Your task to perform on an android device: Go to network settings Image 0: 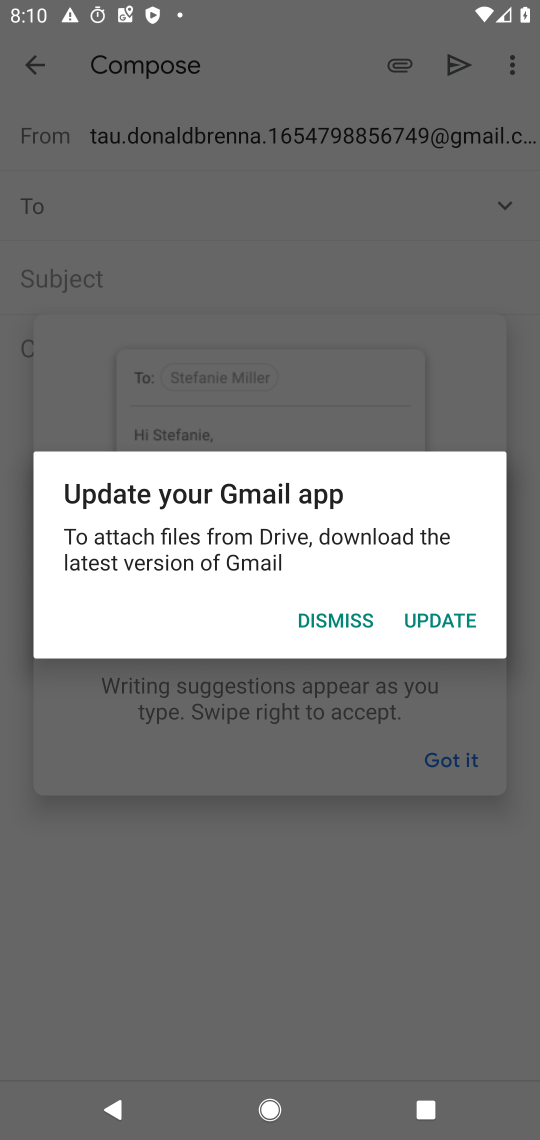
Step 0: press home button
Your task to perform on an android device: Go to network settings Image 1: 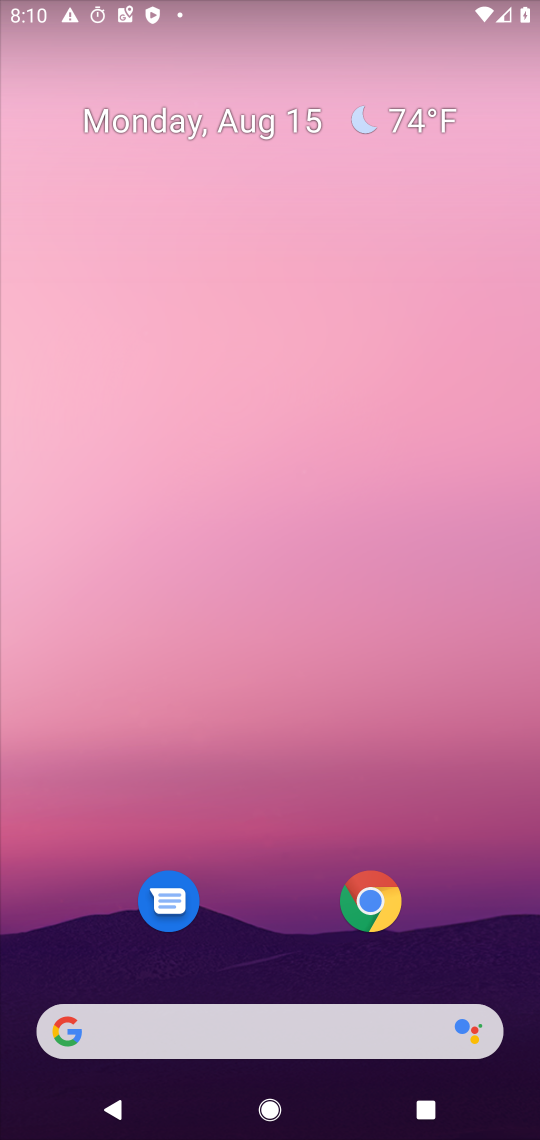
Step 1: drag from (255, 919) to (187, 99)
Your task to perform on an android device: Go to network settings Image 2: 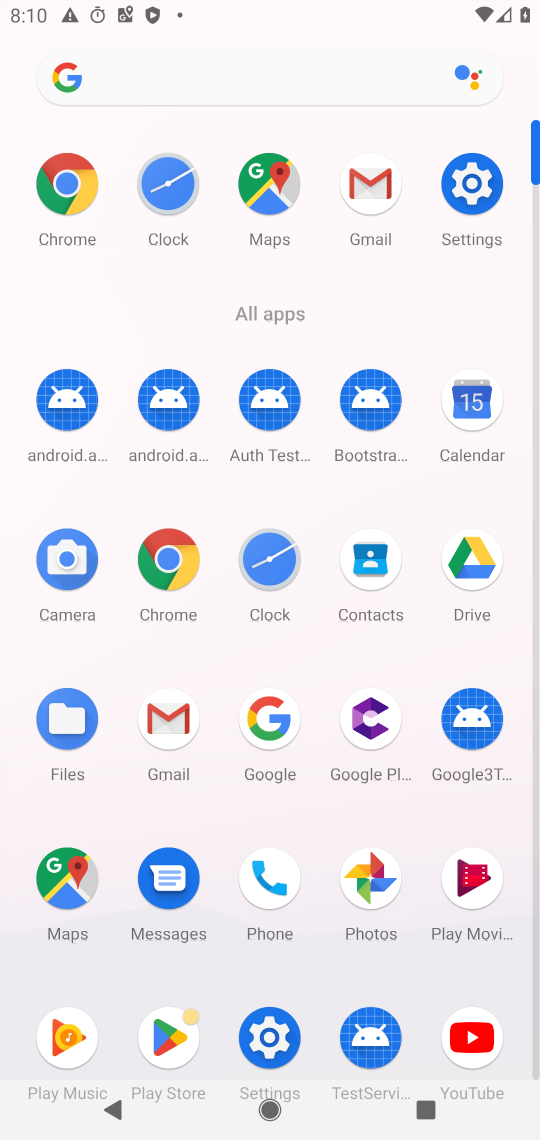
Step 2: click (269, 1027)
Your task to perform on an android device: Go to network settings Image 3: 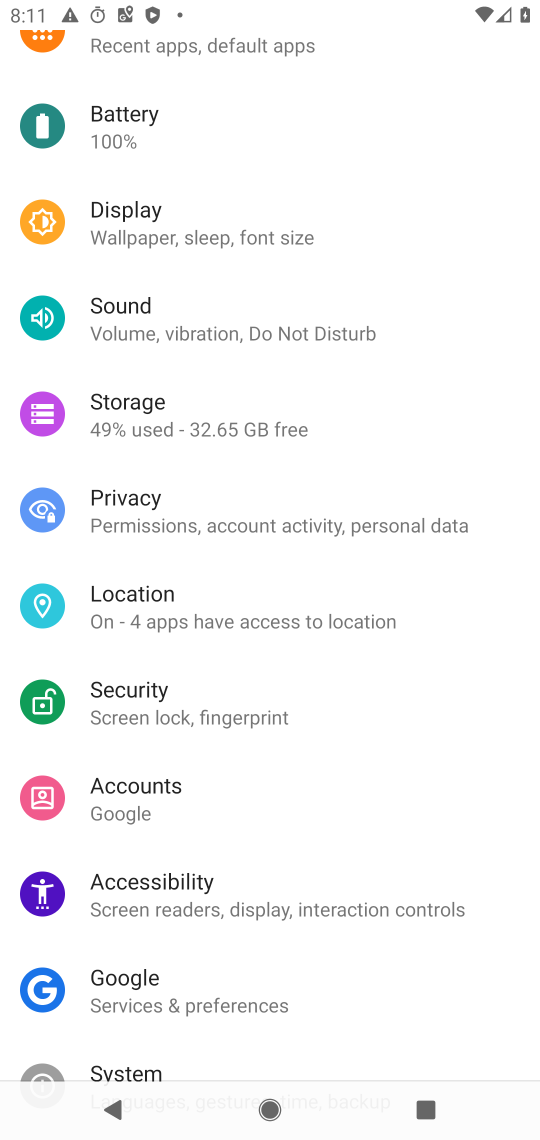
Step 3: drag from (263, 598) to (272, 772)
Your task to perform on an android device: Go to network settings Image 4: 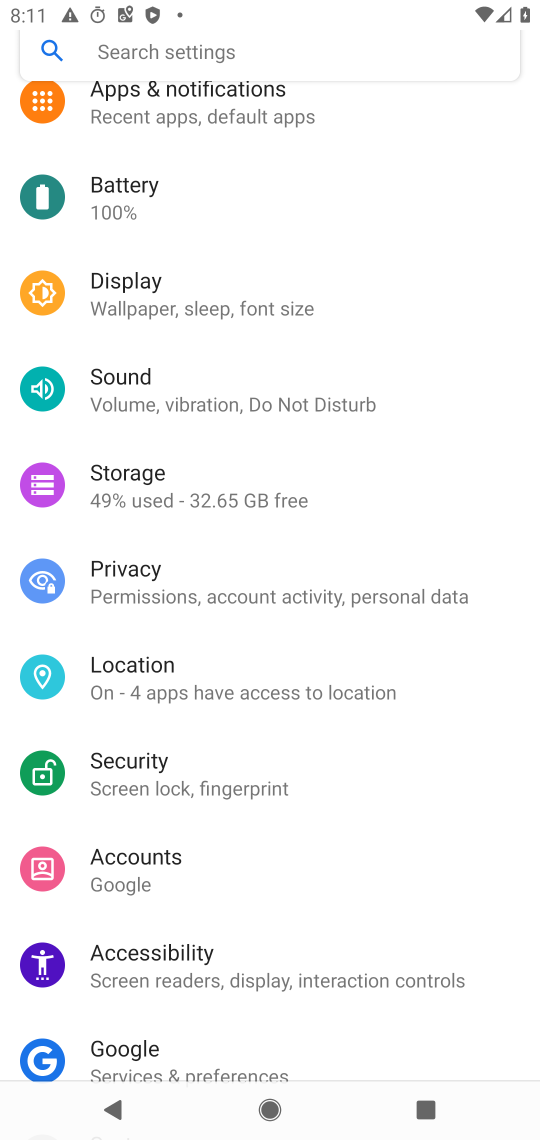
Step 4: drag from (320, 213) to (327, 1011)
Your task to perform on an android device: Go to network settings Image 5: 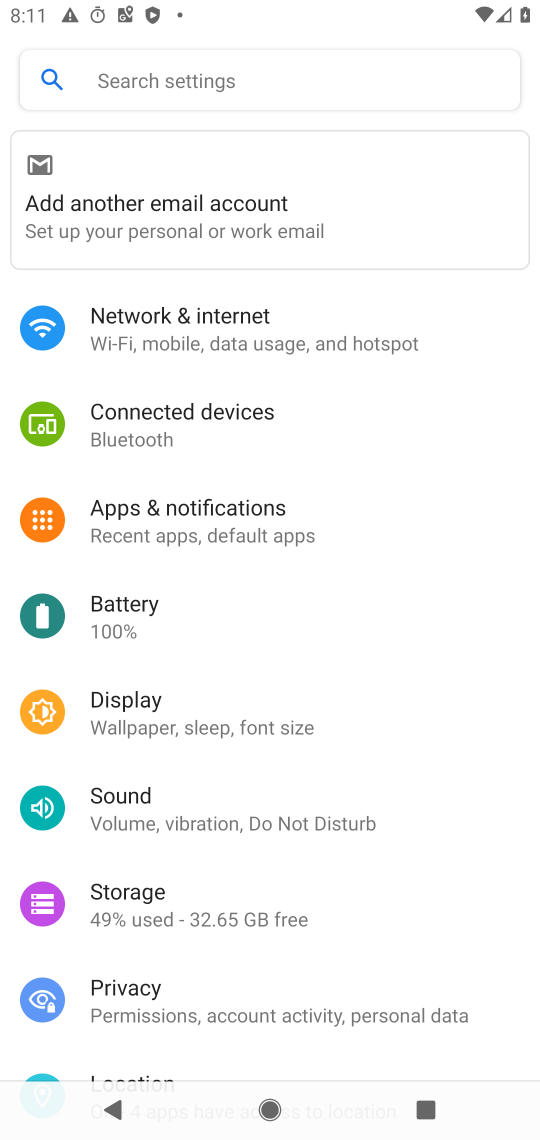
Step 5: click (203, 335)
Your task to perform on an android device: Go to network settings Image 6: 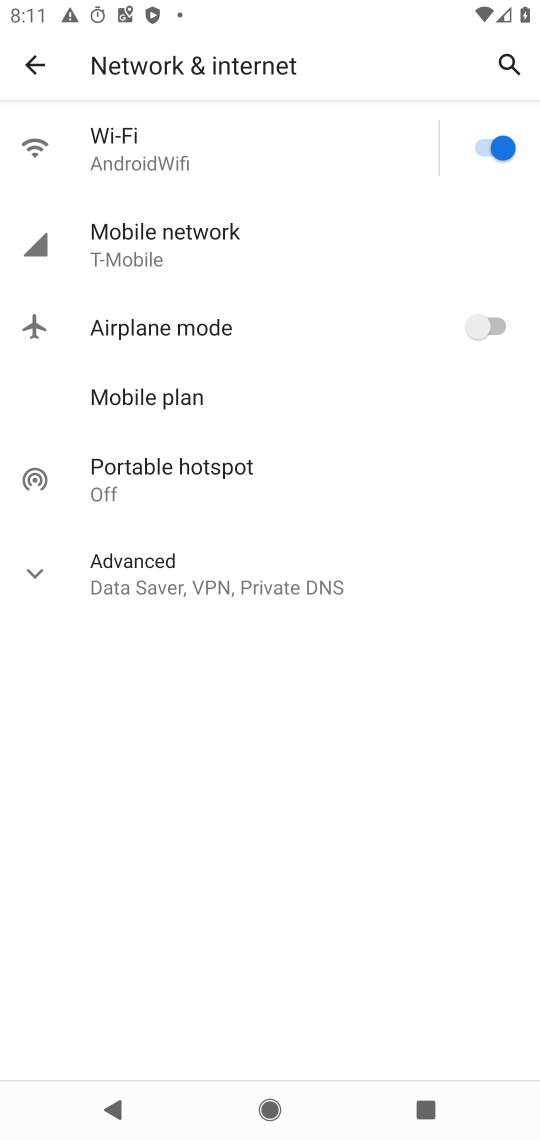
Step 6: task complete